Your task to perform on an android device: Open battery settings Image 0: 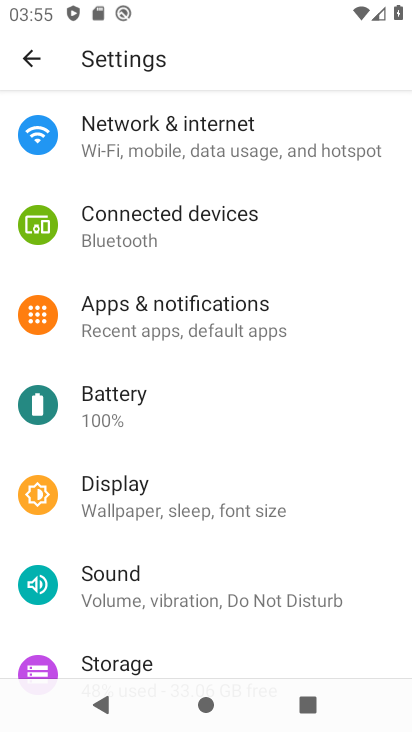
Step 0: click (142, 392)
Your task to perform on an android device: Open battery settings Image 1: 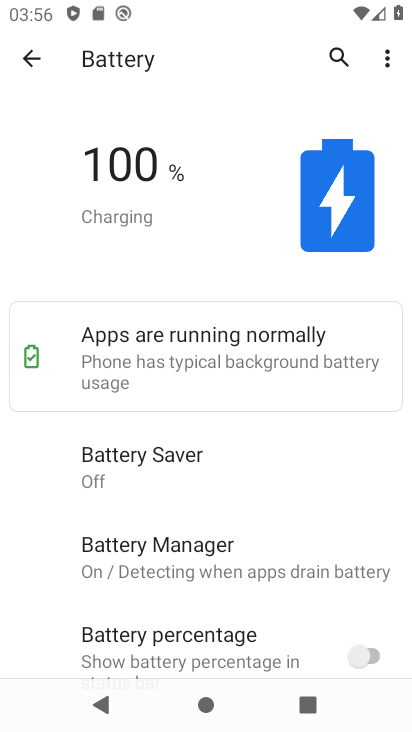
Step 1: task complete